Your task to perform on an android device: Go to Yahoo.com Image 0: 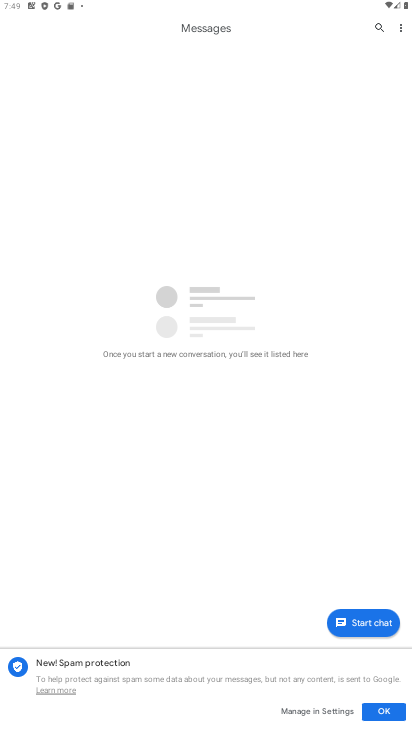
Step 0: press home button
Your task to perform on an android device: Go to Yahoo.com Image 1: 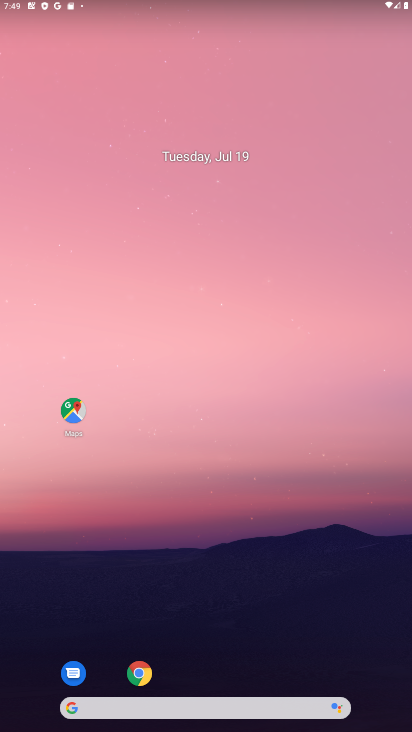
Step 1: click (234, 707)
Your task to perform on an android device: Go to Yahoo.com Image 2: 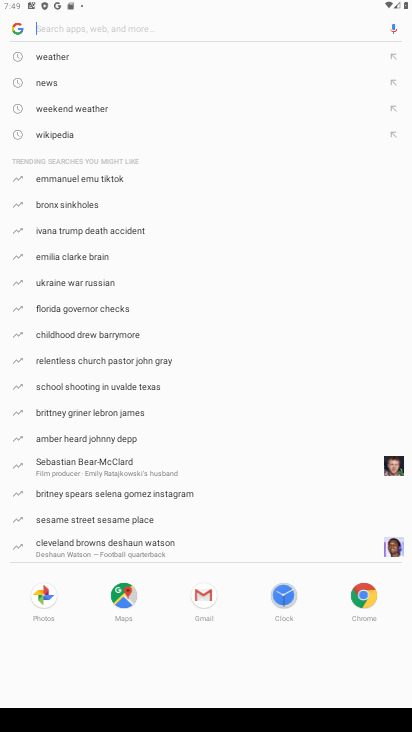
Step 2: type "yahoo.com"
Your task to perform on an android device: Go to Yahoo.com Image 3: 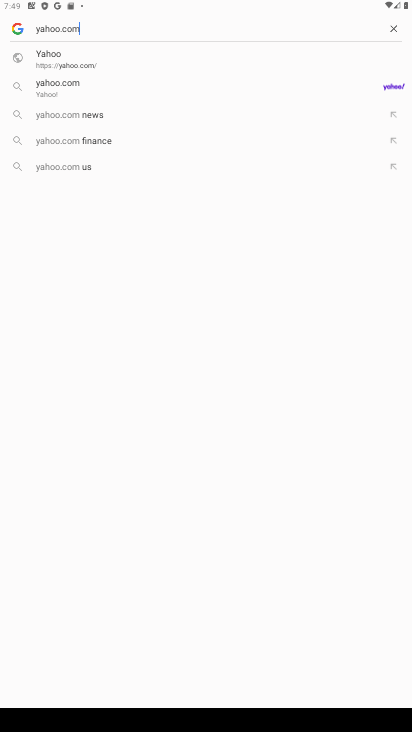
Step 3: click (239, 50)
Your task to perform on an android device: Go to Yahoo.com Image 4: 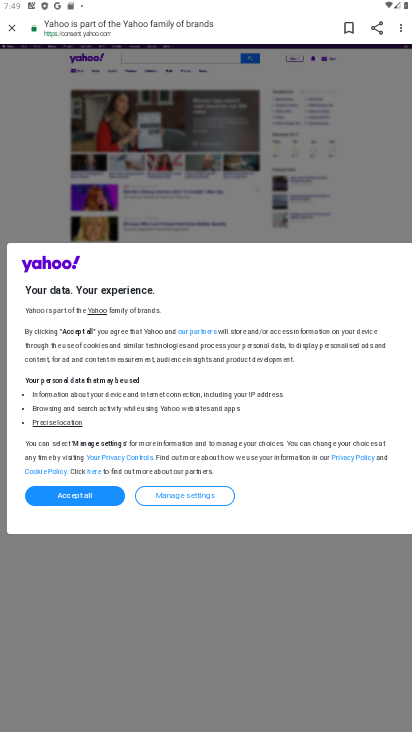
Step 4: click (65, 500)
Your task to perform on an android device: Go to Yahoo.com Image 5: 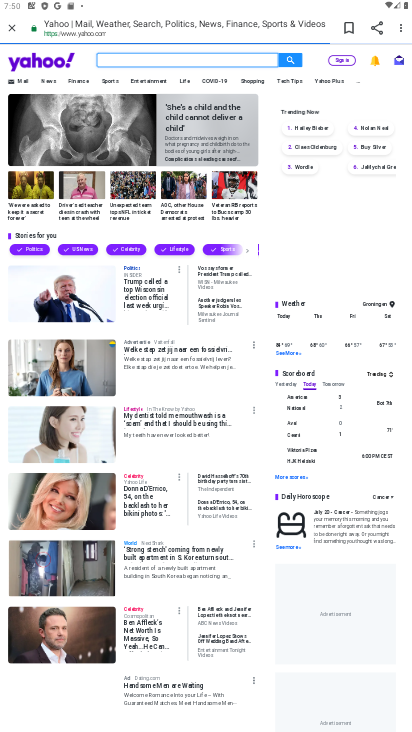
Step 5: task complete